Your task to perform on an android device: Go to Android settings Image 0: 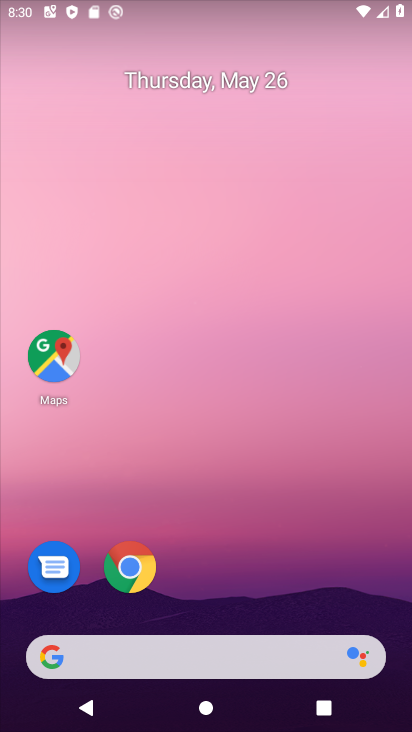
Step 0: drag from (166, 654) to (310, 74)
Your task to perform on an android device: Go to Android settings Image 1: 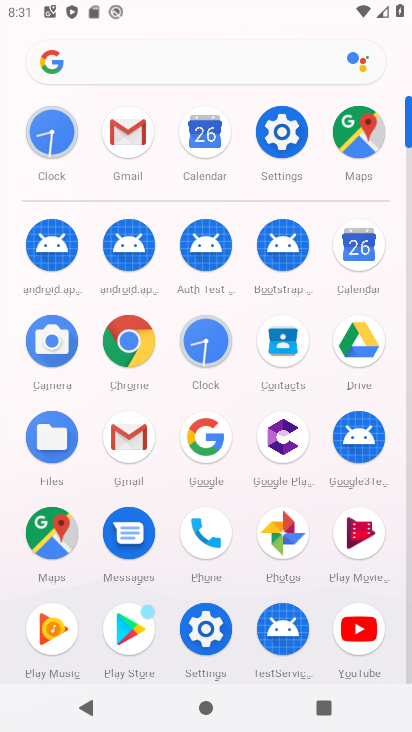
Step 1: click (286, 138)
Your task to perform on an android device: Go to Android settings Image 2: 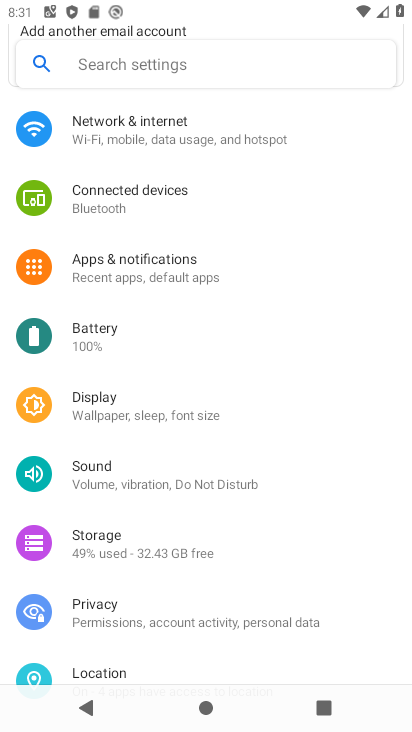
Step 2: task complete